Your task to perform on an android device: read, delete, or share a saved page in the chrome app Image 0: 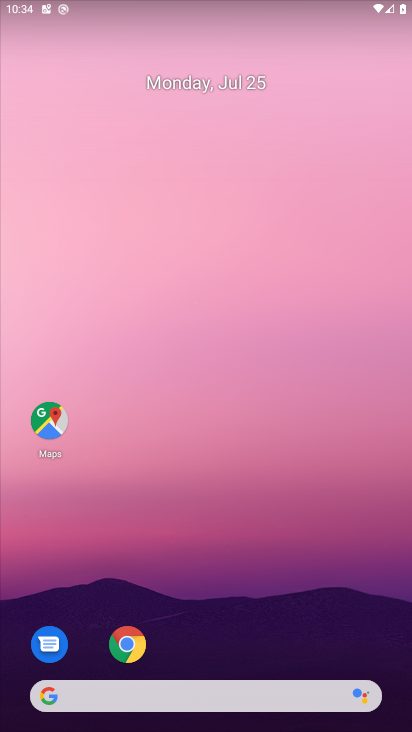
Step 0: click (129, 649)
Your task to perform on an android device: read, delete, or share a saved page in the chrome app Image 1: 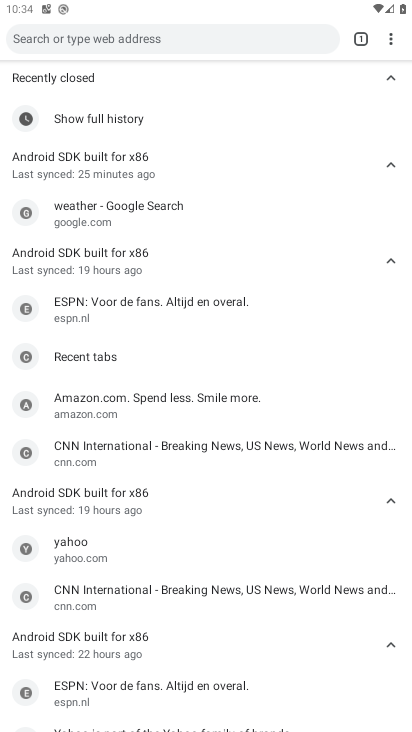
Step 1: drag from (380, 34) to (267, 258)
Your task to perform on an android device: read, delete, or share a saved page in the chrome app Image 2: 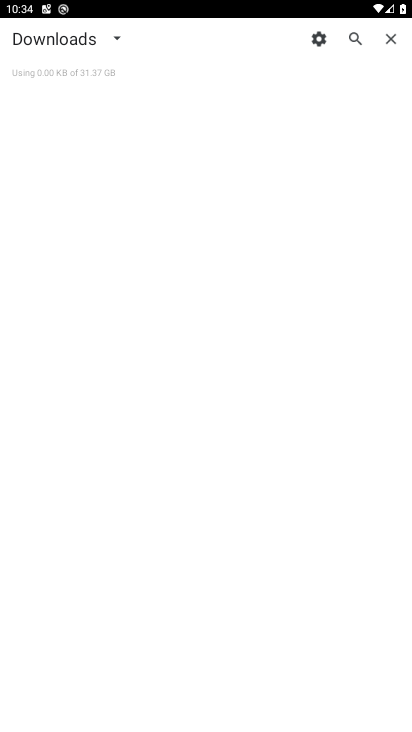
Step 2: click (124, 31)
Your task to perform on an android device: read, delete, or share a saved page in the chrome app Image 3: 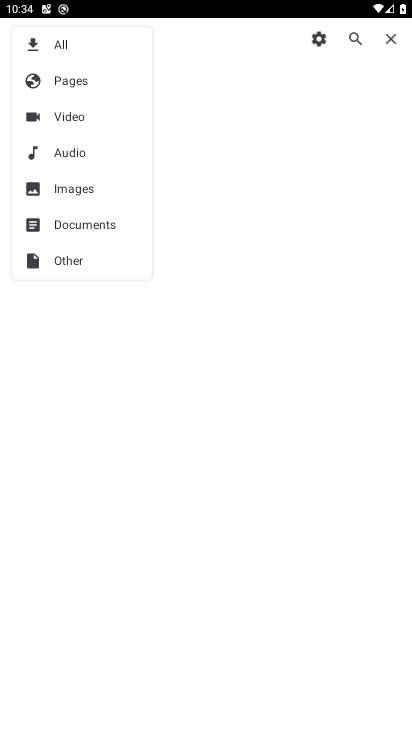
Step 3: click (70, 75)
Your task to perform on an android device: read, delete, or share a saved page in the chrome app Image 4: 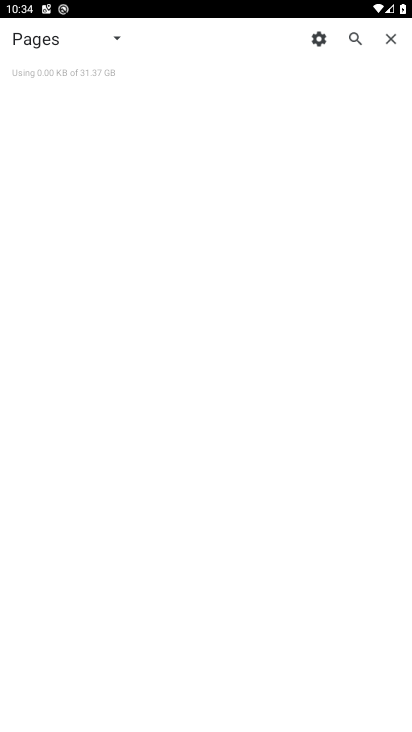
Step 4: task complete